Your task to perform on an android device: delete a single message in the gmail app Image 0: 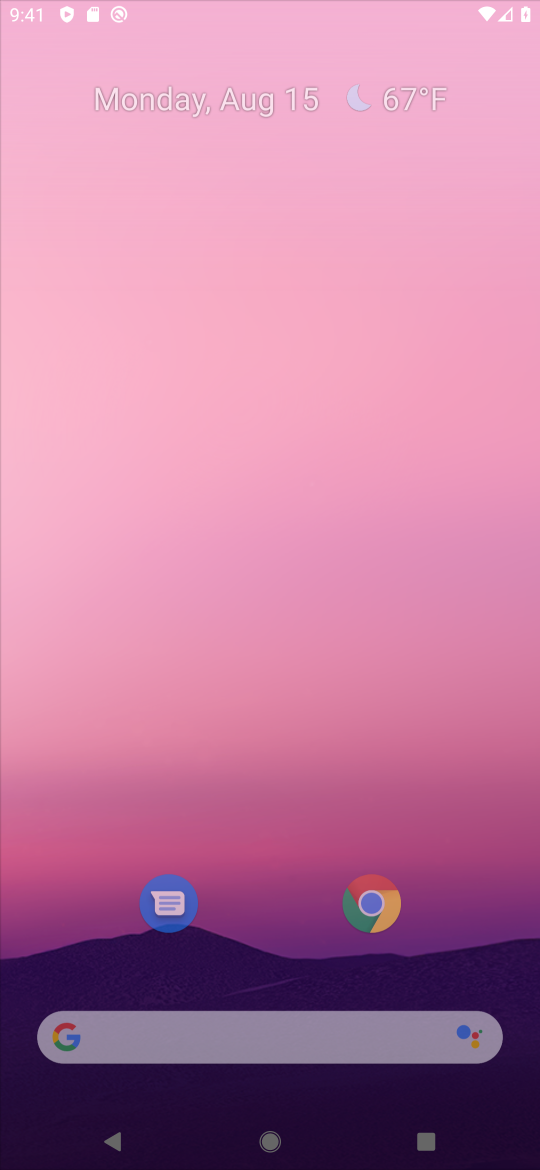
Step 0: press home button
Your task to perform on an android device: delete a single message in the gmail app Image 1: 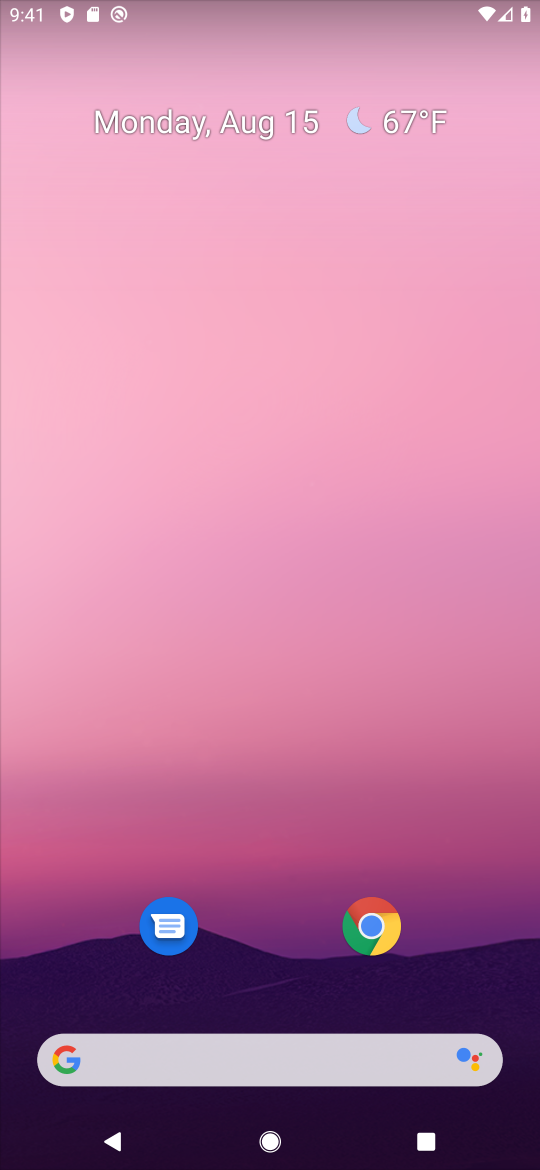
Step 1: drag from (281, 966) to (522, 6)
Your task to perform on an android device: delete a single message in the gmail app Image 2: 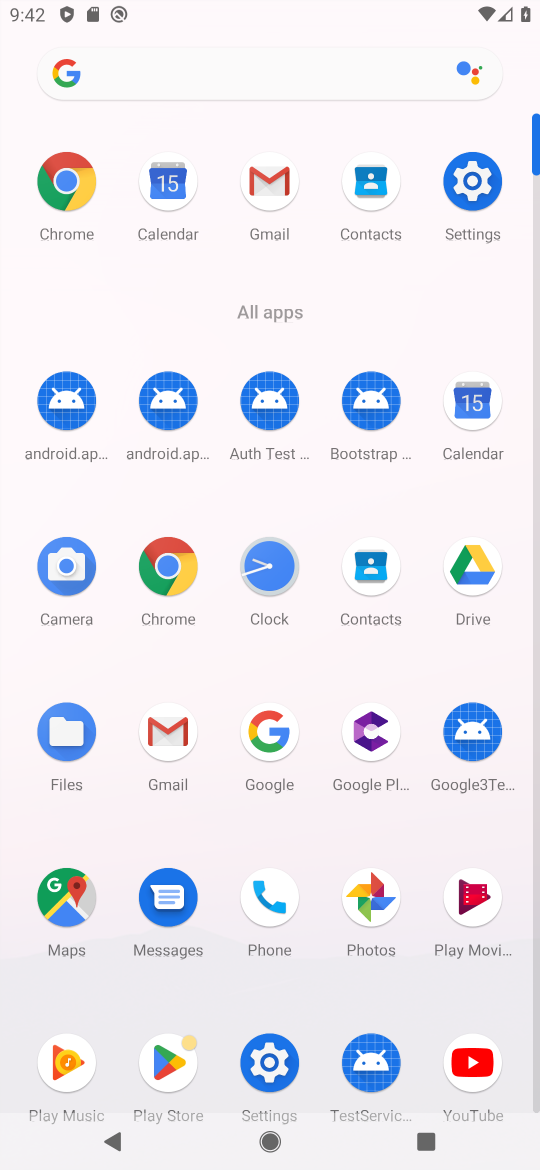
Step 2: click (164, 732)
Your task to perform on an android device: delete a single message in the gmail app Image 3: 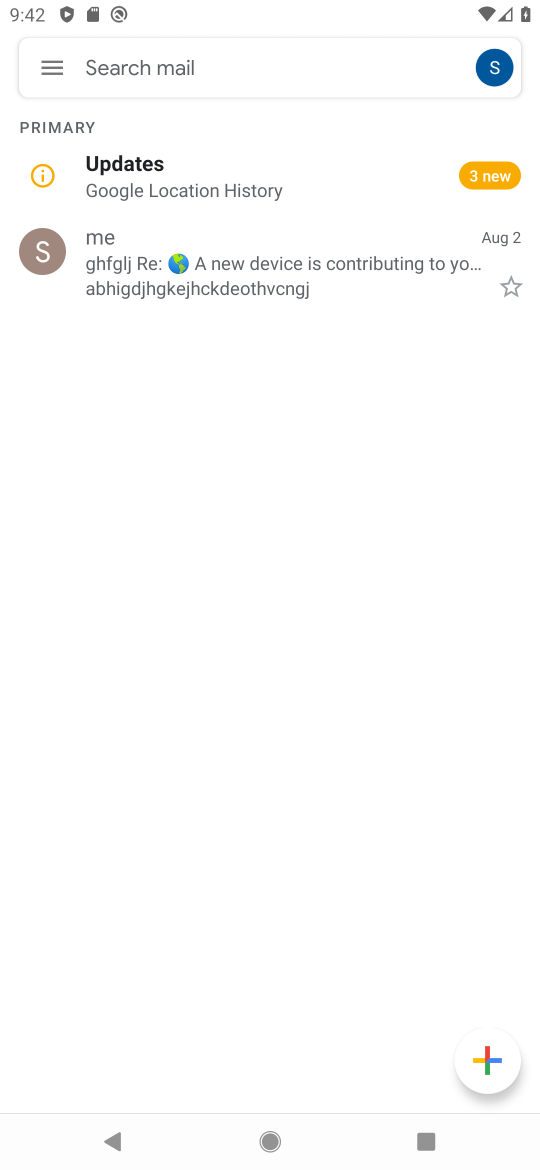
Step 3: click (318, 285)
Your task to perform on an android device: delete a single message in the gmail app Image 4: 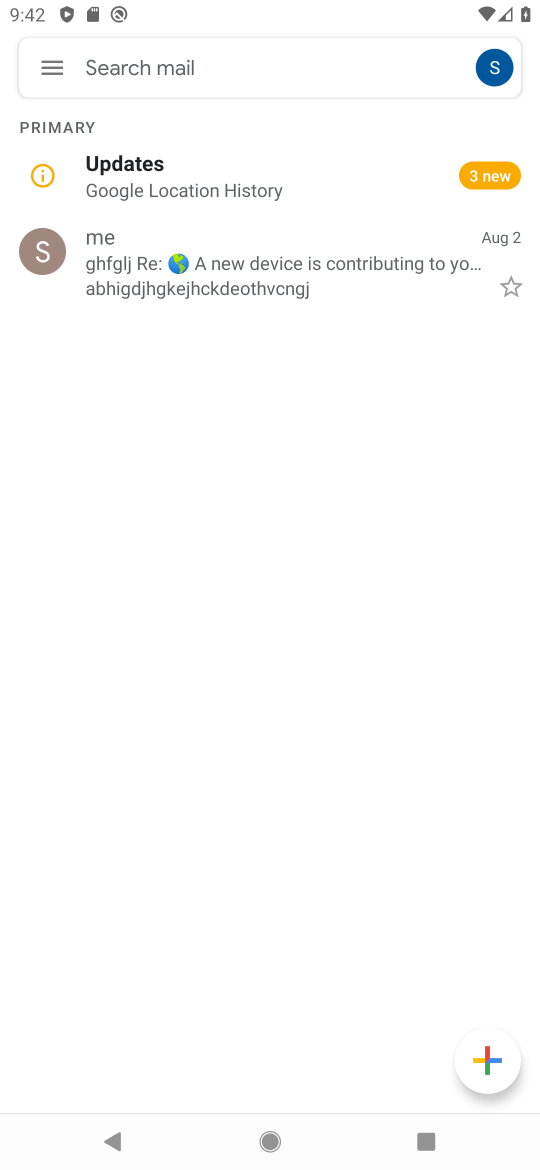
Step 4: click (342, 273)
Your task to perform on an android device: delete a single message in the gmail app Image 5: 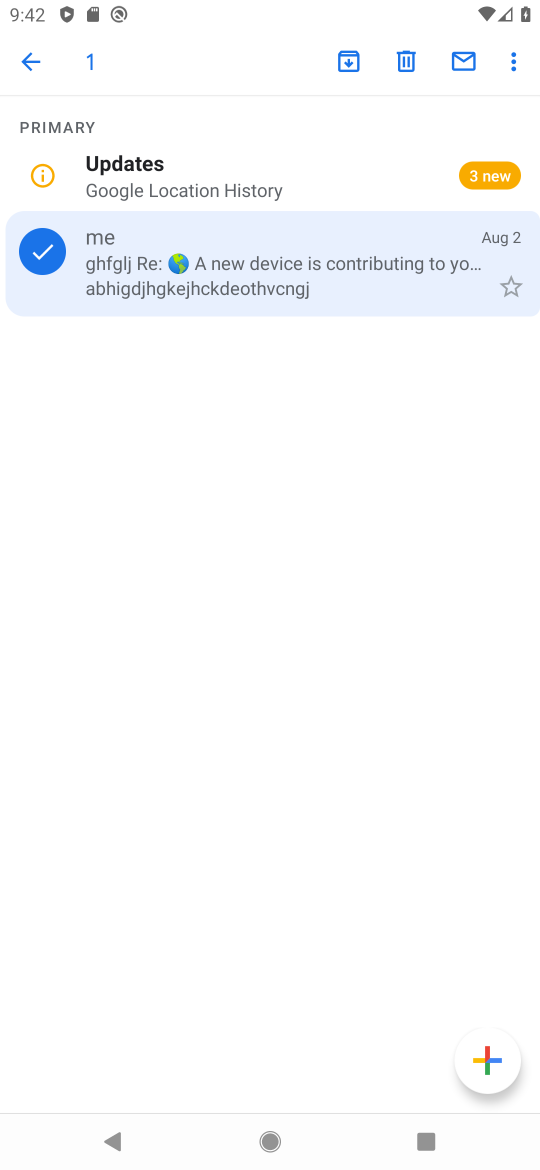
Step 5: click (409, 74)
Your task to perform on an android device: delete a single message in the gmail app Image 6: 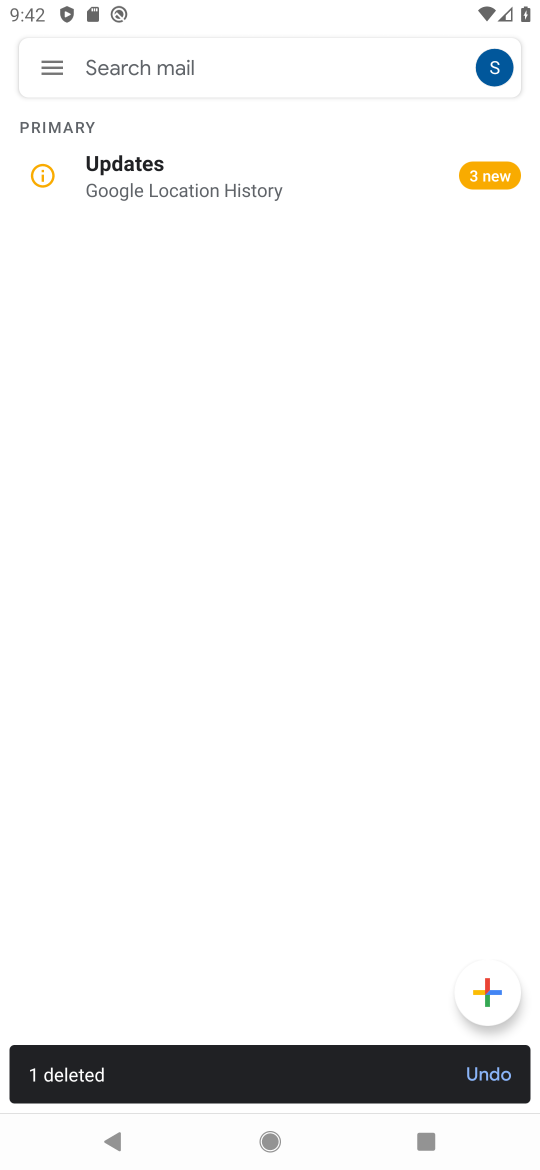
Step 6: task complete